Your task to perform on an android device: change keyboard looks Image 0: 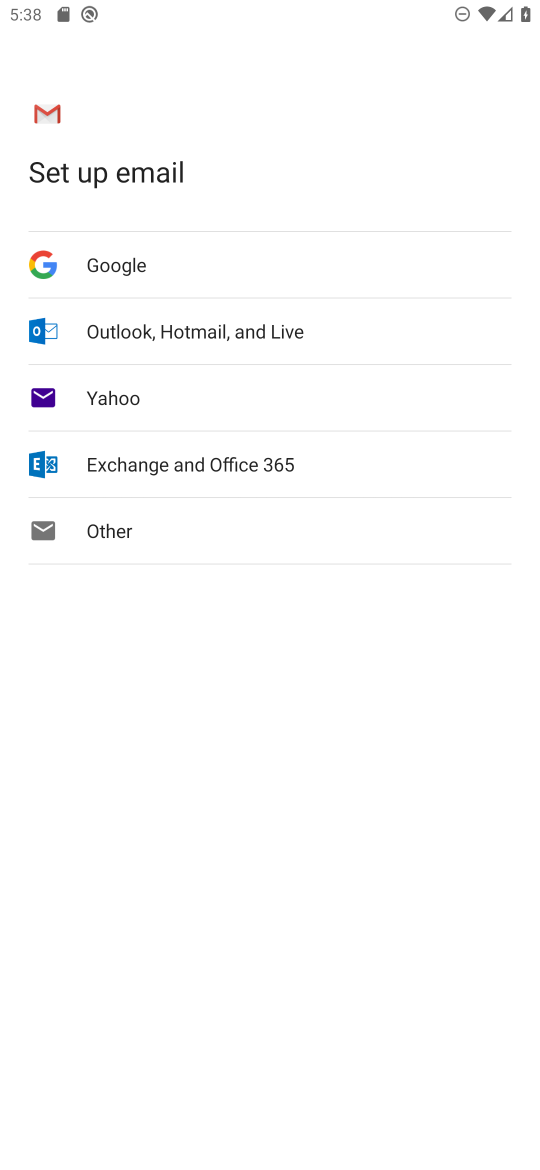
Step 0: press home button
Your task to perform on an android device: change keyboard looks Image 1: 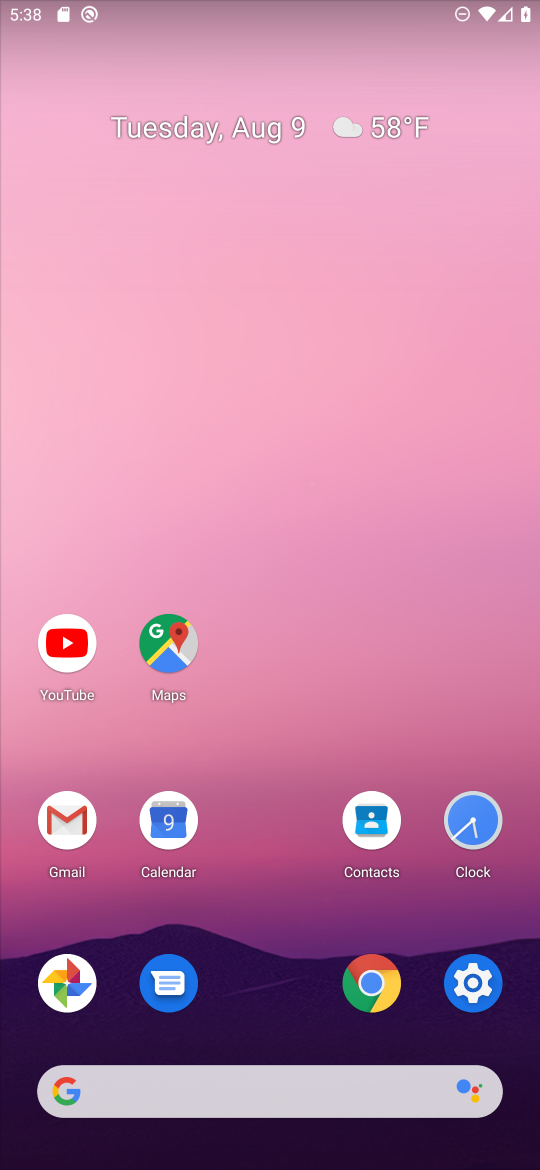
Step 1: click (474, 977)
Your task to perform on an android device: change keyboard looks Image 2: 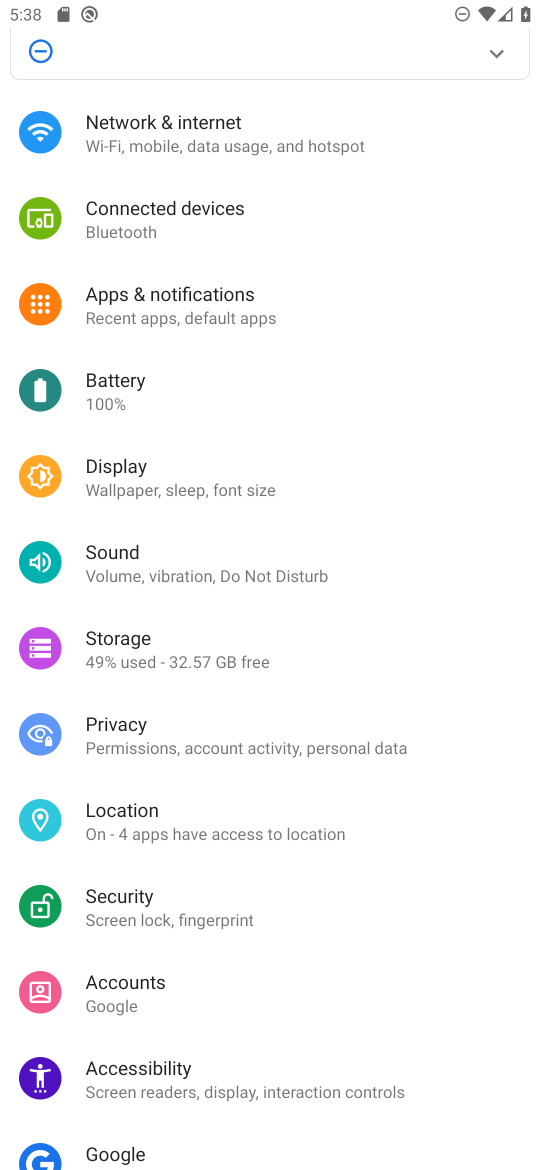
Step 2: drag from (300, 1031) to (249, 443)
Your task to perform on an android device: change keyboard looks Image 3: 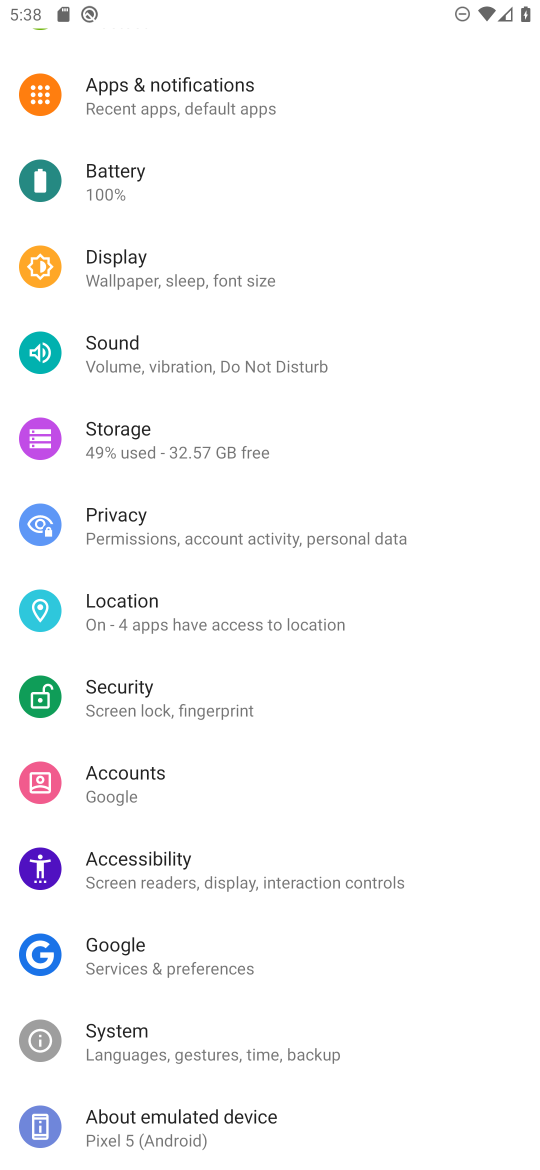
Step 3: click (133, 1029)
Your task to perform on an android device: change keyboard looks Image 4: 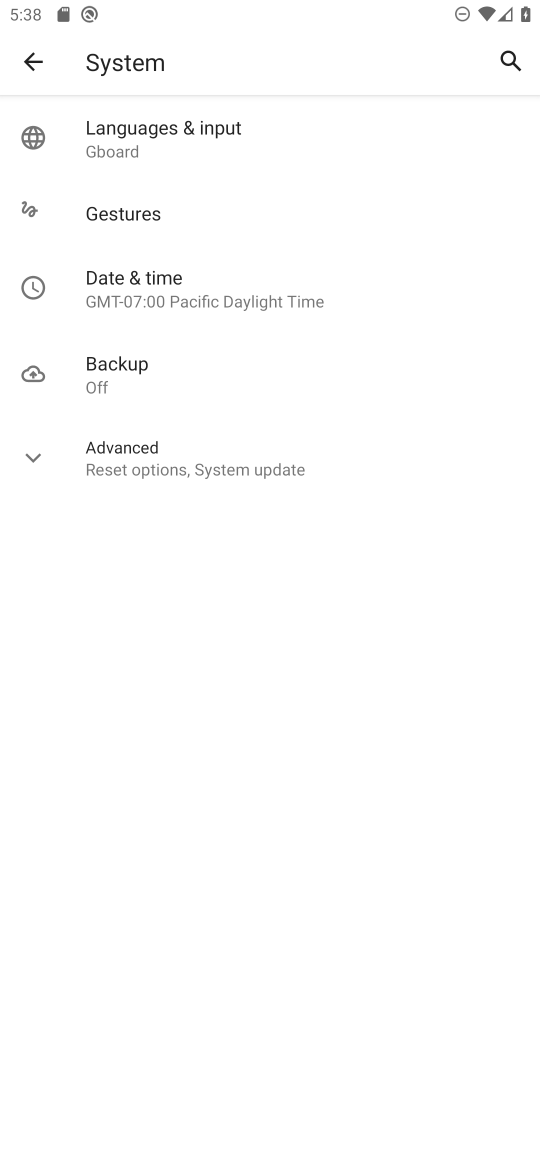
Step 4: click (114, 117)
Your task to perform on an android device: change keyboard looks Image 5: 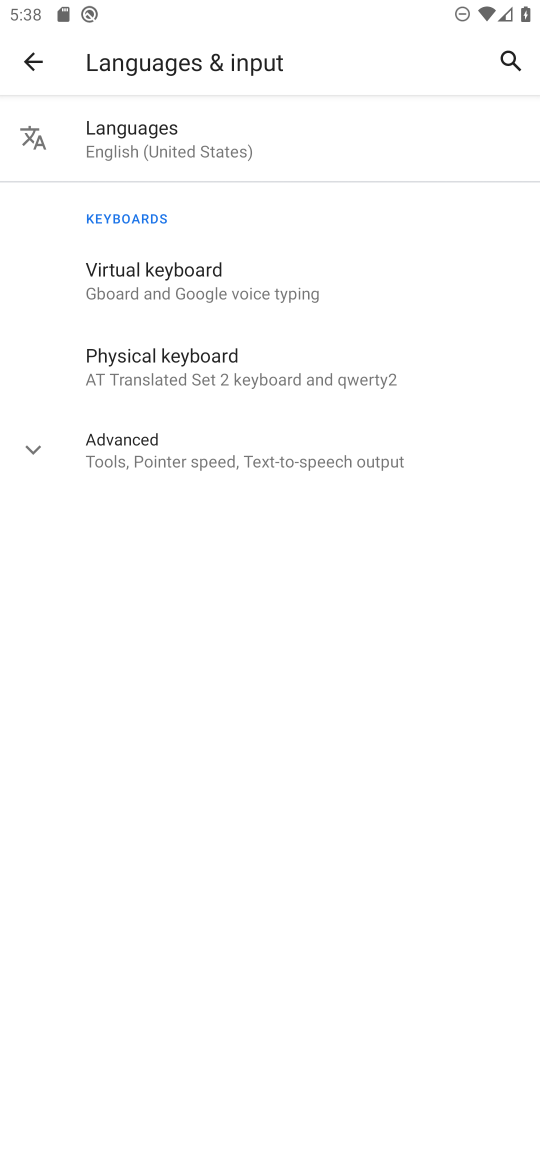
Step 5: click (148, 268)
Your task to perform on an android device: change keyboard looks Image 6: 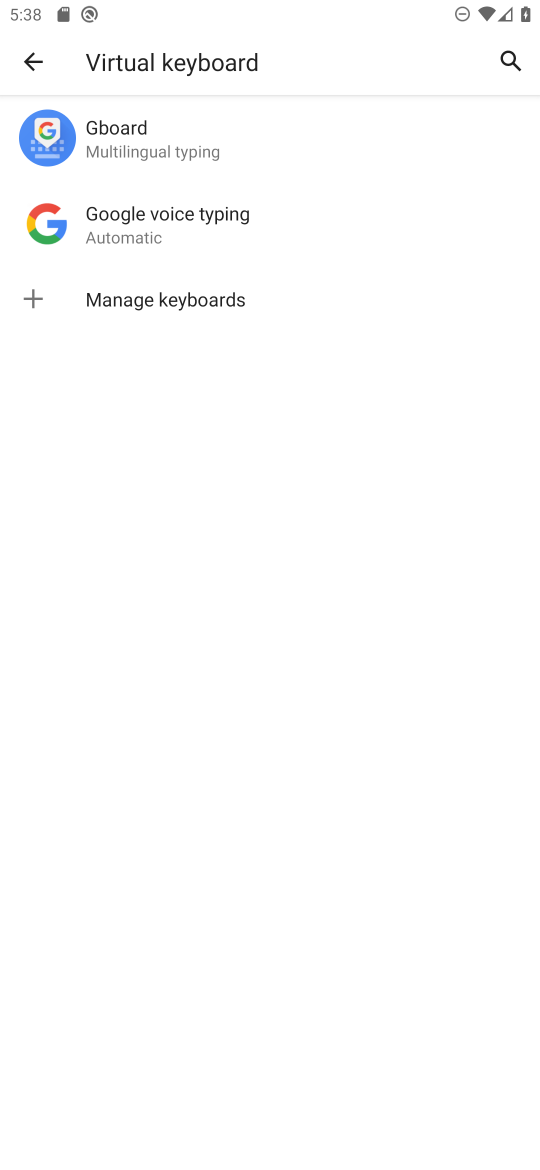
Step 6: click (117, 129)
Your task to perform on an android device: change keyboard looks Image 7: 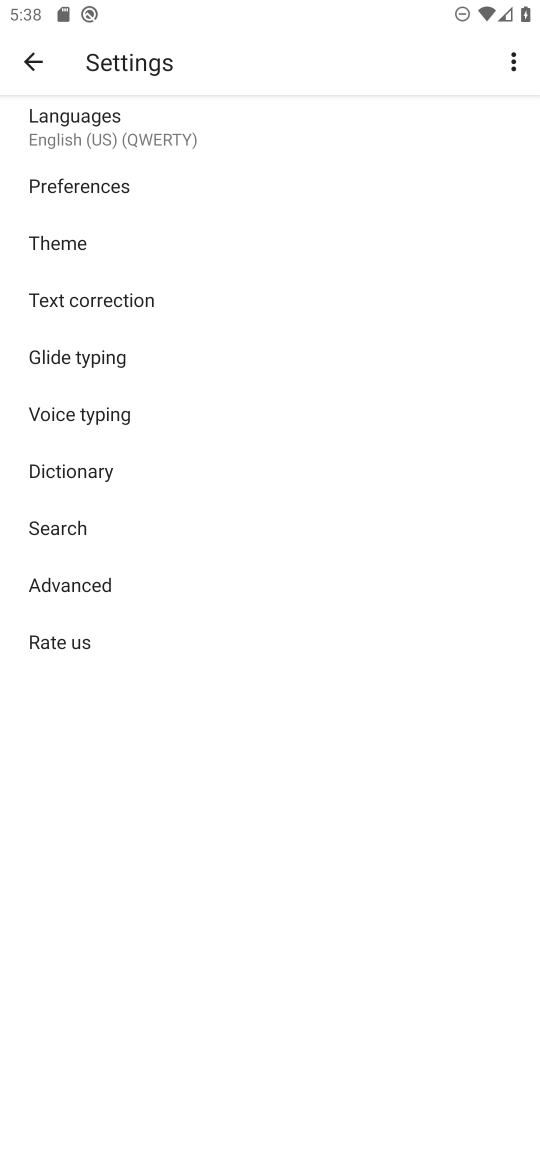
Step 7: click (59, 236)
Your task to perform on an android device: change keyboard looks Image 8: 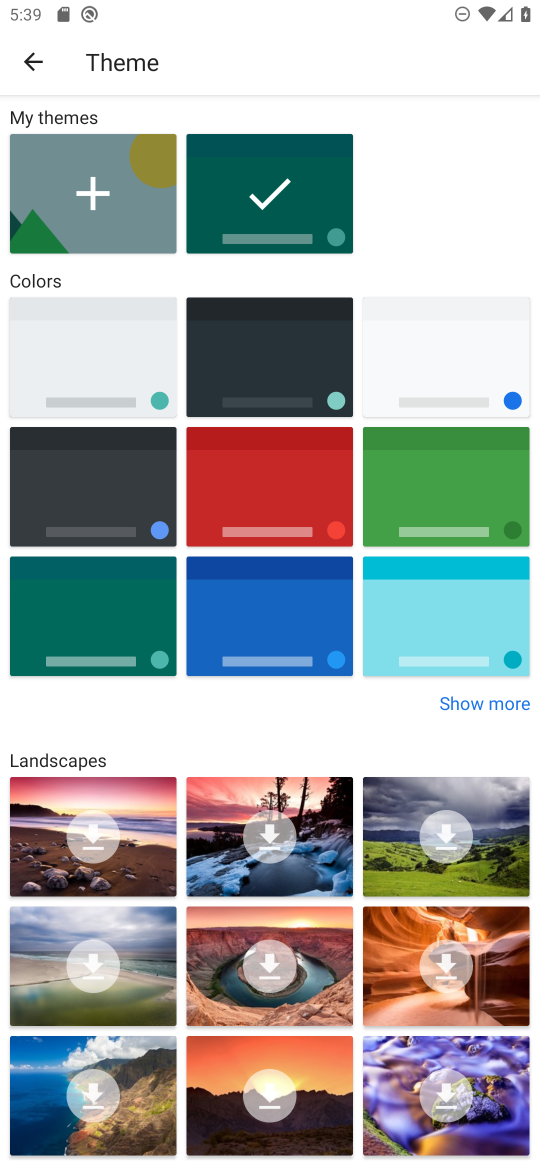
Step 8: click (244, 341)
Your task to perform on an android device: change keyboard looks Image 9: 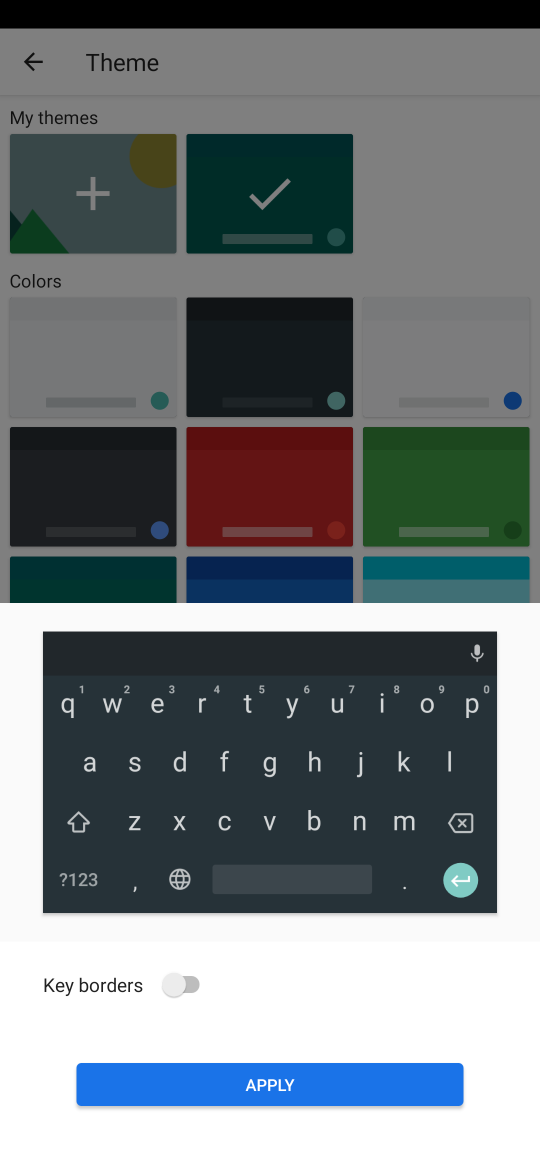
Step 9: click (273, 1083)
Your task to perform on an android device: change keyboard looks Image 10: 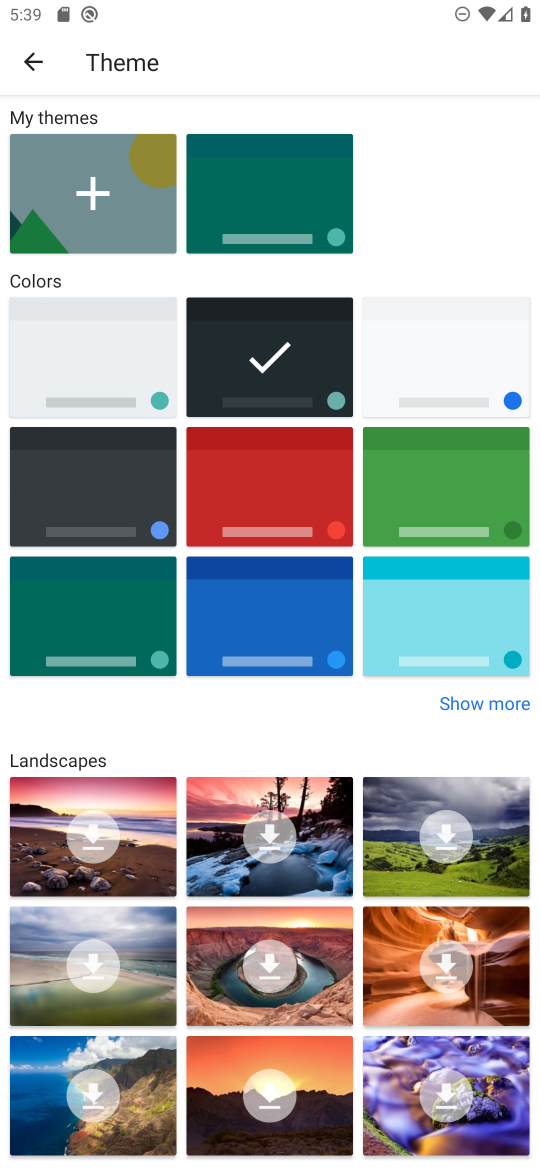
Step 10: task complete